Your task to perform on an android device: Go to Amazon Image 0: 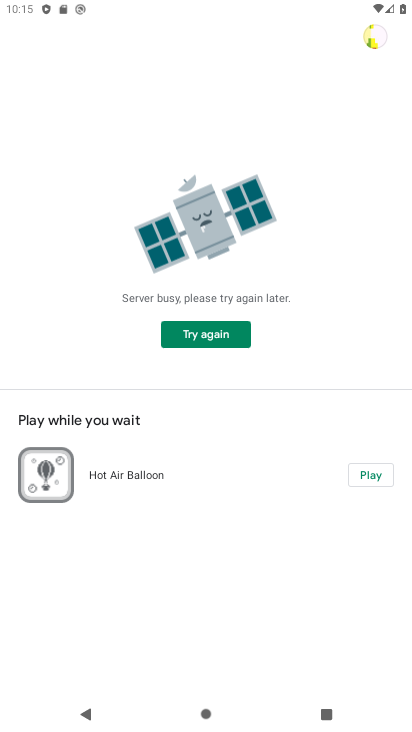
Step 0: press home button
Your task to perform on an android device: Go to Amazon Image 1: 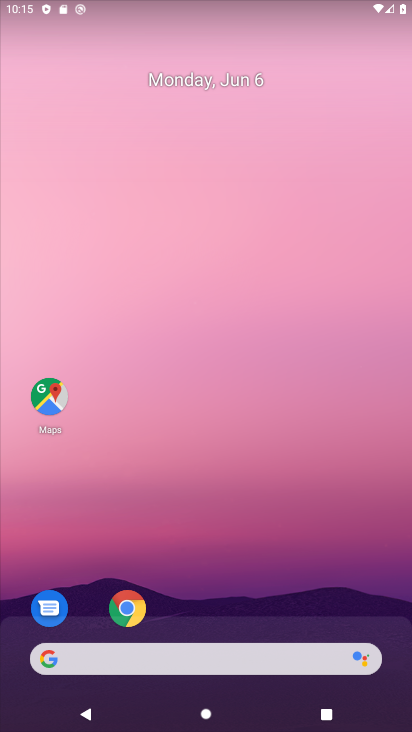
Step 1: drag from (200, 278) to (219, 37)
Your task to perform on an android device: Go to Amazon Image 2: 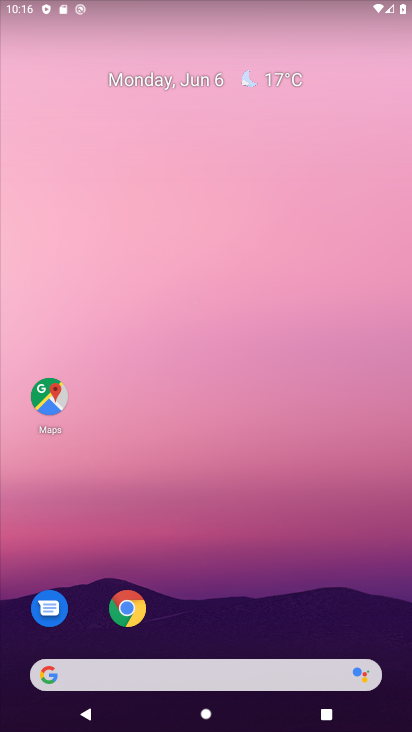
Step 2: drag from (212, 655) to (234, 17)
Your task to perform on an android device: Go to Amazon Image 3: 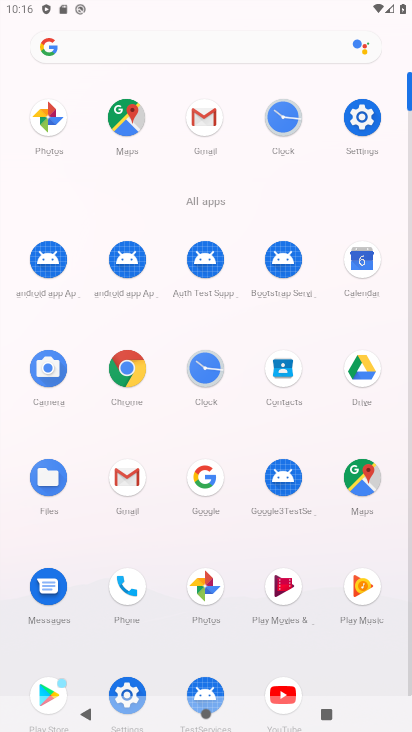
Step 3: click (125, 385)
Your task to perform on an android device: Go to Amazon Image 4: 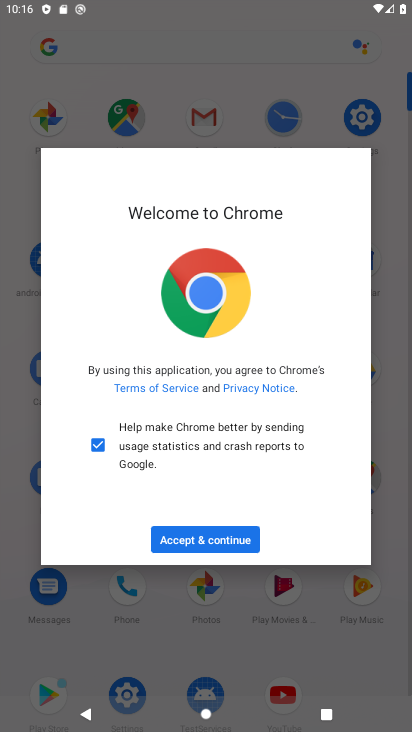
Step 4: click (207, 542)
Your task to perform on an android device: Go to Amazon Image 5: 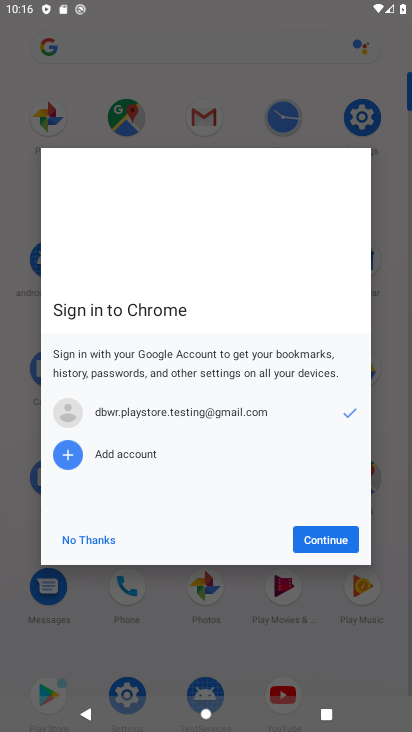
Step 5: click (330, 538)
Your task to perform on an android device: Go to Amazon Image 6: 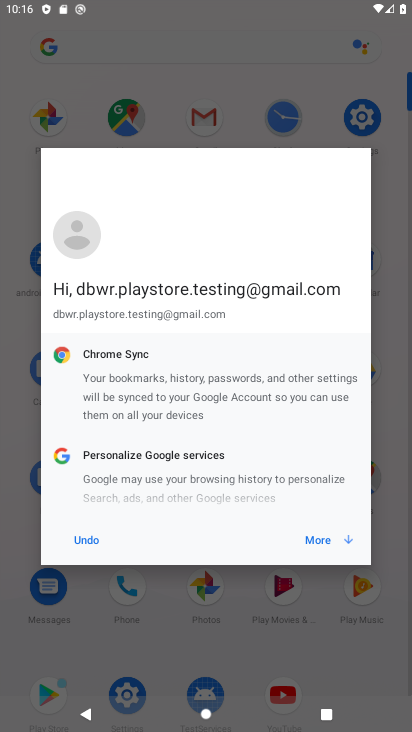
Step 6: click (330, 538)
Your task to perform on an android device: Go to Amazon Image 7: 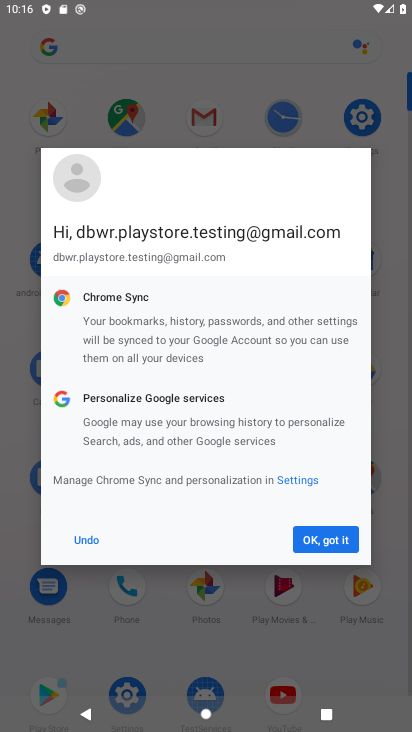
Step 7: click (334, 542)
Your task to perform on an android device: Go to Amazon Image 8: 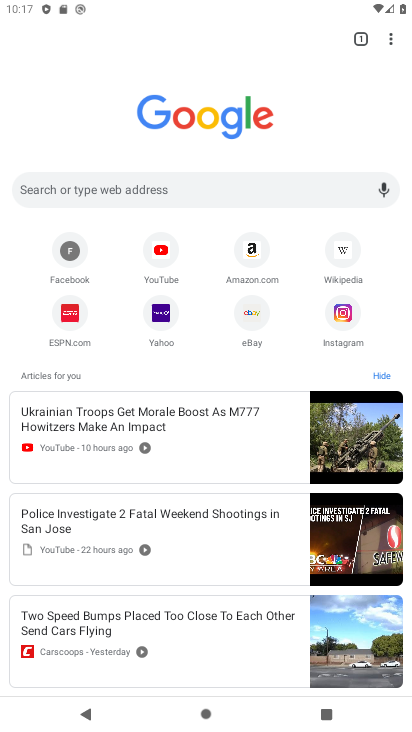
Step 8: click (247, 242)
Your task to perform on an android device: Go to Amazon Image 9: 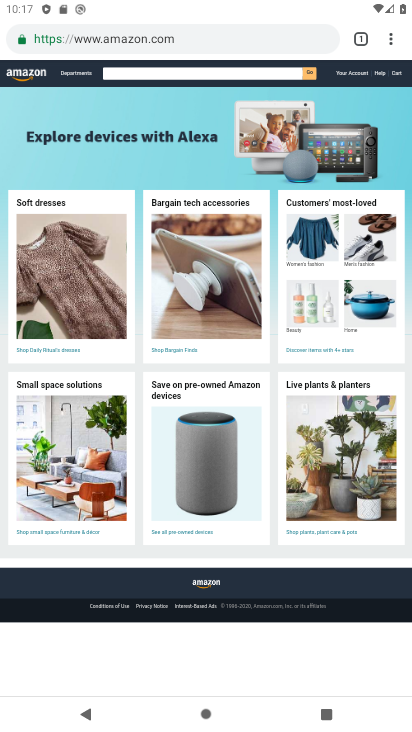
Step 9: task complete